Your task to perform on an android device: Open Yahoo.com Image 0: 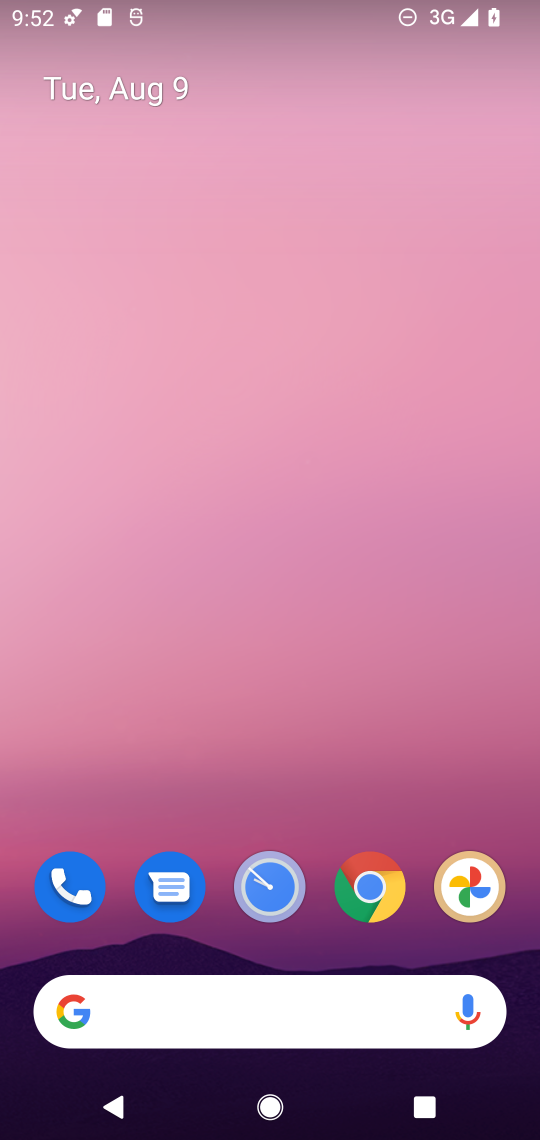
Step 0: click (330, 877)
Your task to perform on an android device: Open Yahoo.com Image 1: 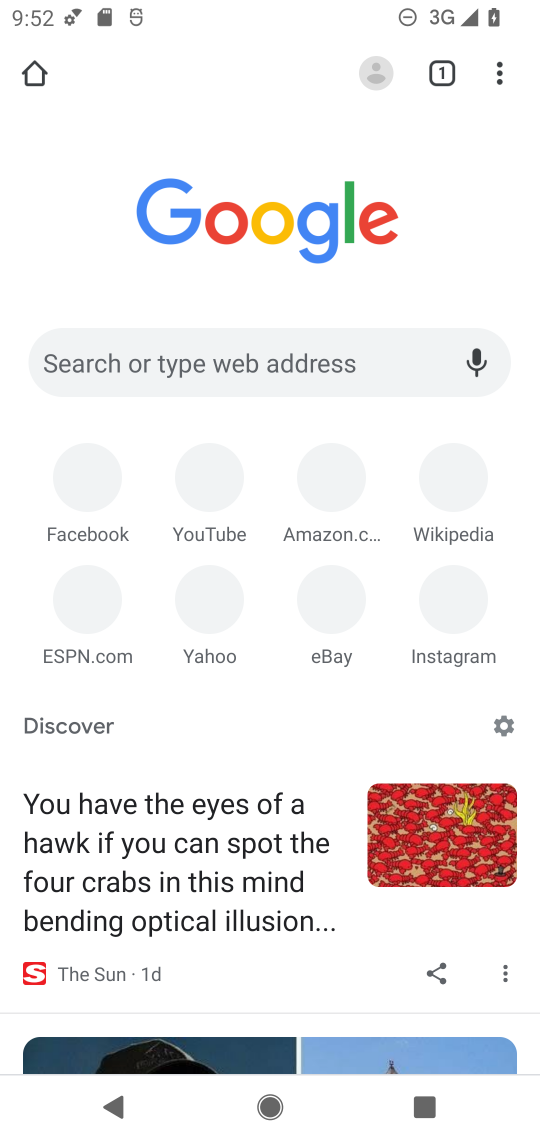
Step 1: click (232, 607)
Your task to perform on an android device: Open Yahoo.com Image 2: 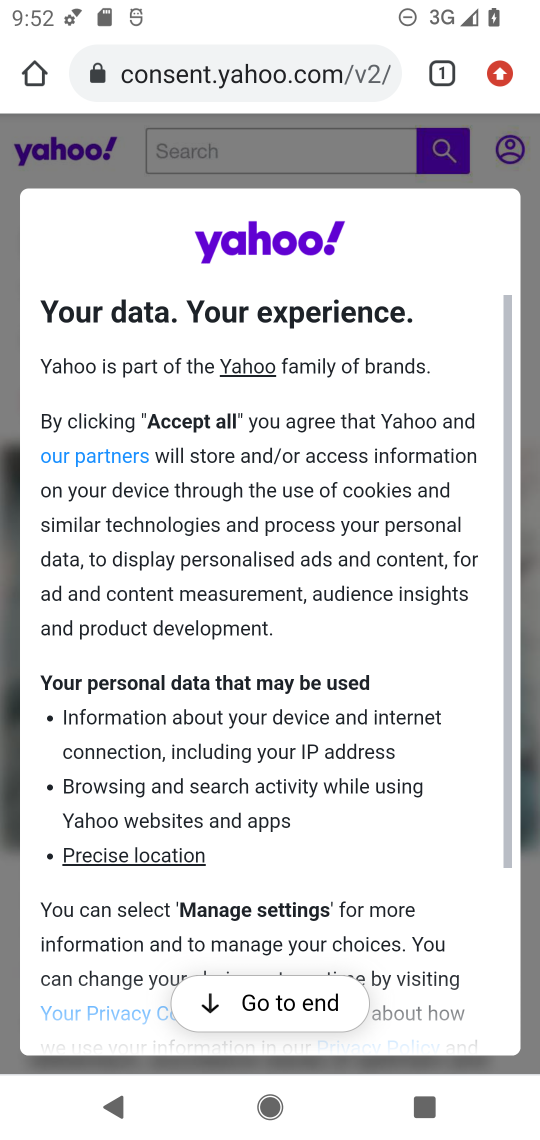
Step 2: task complete